Your task to perform on an android device: Go to Amazon Image 0: 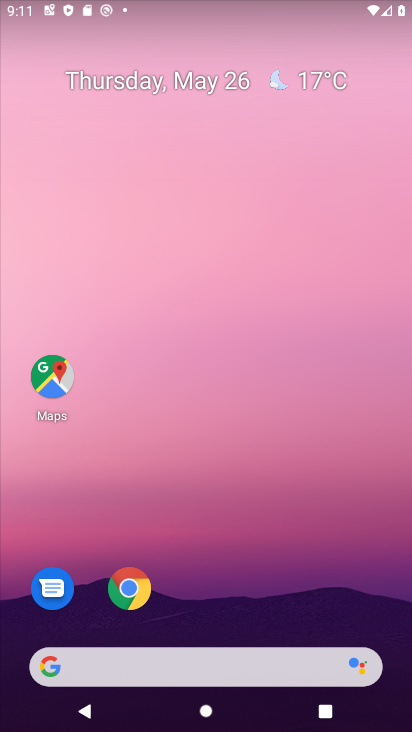
Step 0: click (132, 589)
Your task to perform on an android device: Go to Amazon Image 1: 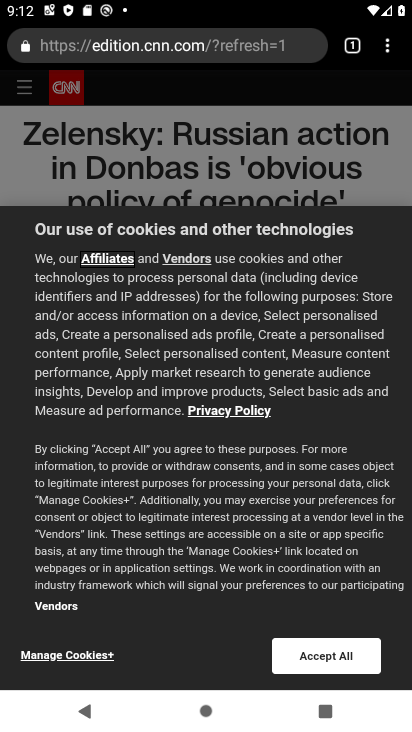
Step 1: click (291, 49)
Your task to perform on an android device: Go to Amazon Image 2: 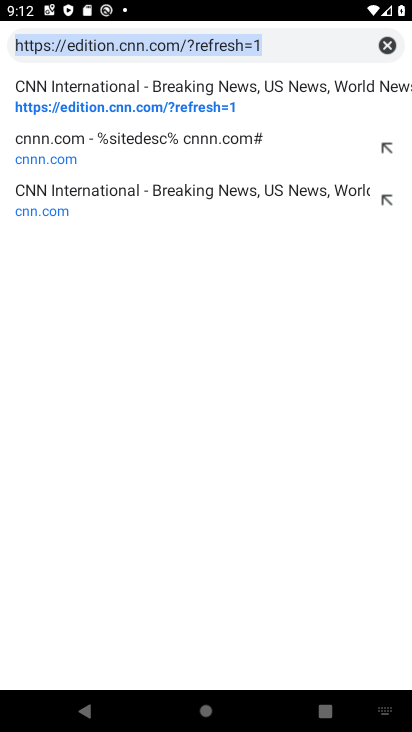
Step 2: click (386, 38)
Your task to perform on an android device: Go to Amazon Image 3: 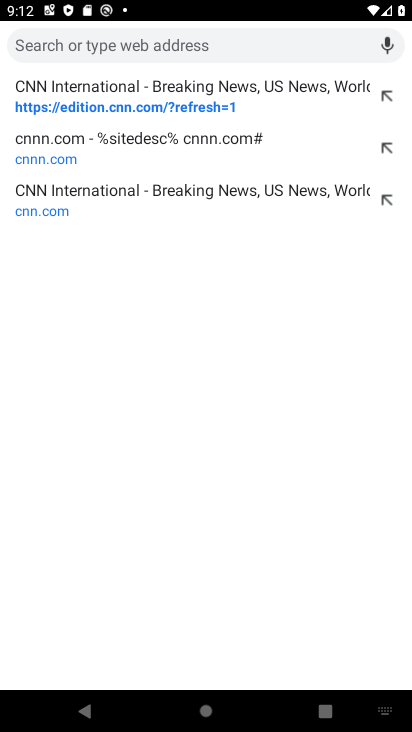
Step 3: type "amazon"
Your task to perform on an android device: Go to Amazon Image 4: 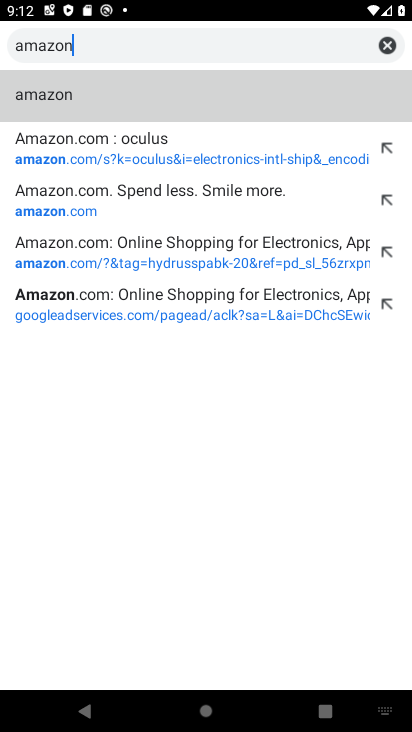
Step 4: click (46, 92)
Your task to perform on an android device: Go to Amazon Image 5: 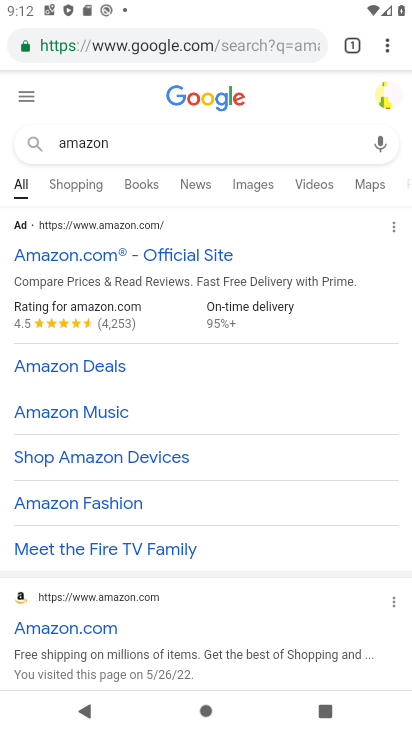
Step 5: click (97, 622)
Your task to perform on an android device: Go to Amazon Image 6: 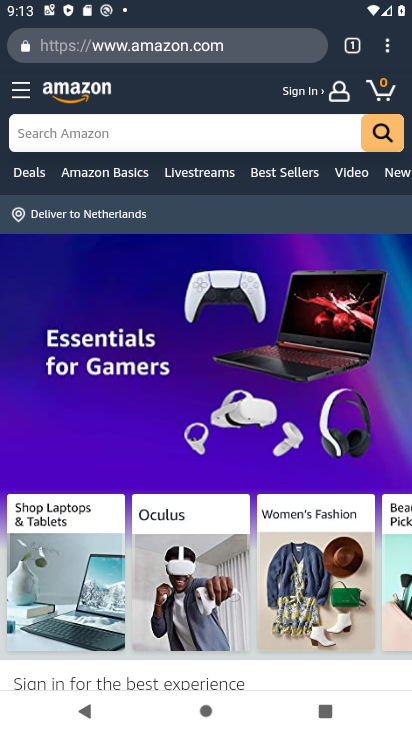
Step 6: task complete